Your task to perform on an android device: toggle priority inbox in the gmail app Image 0: 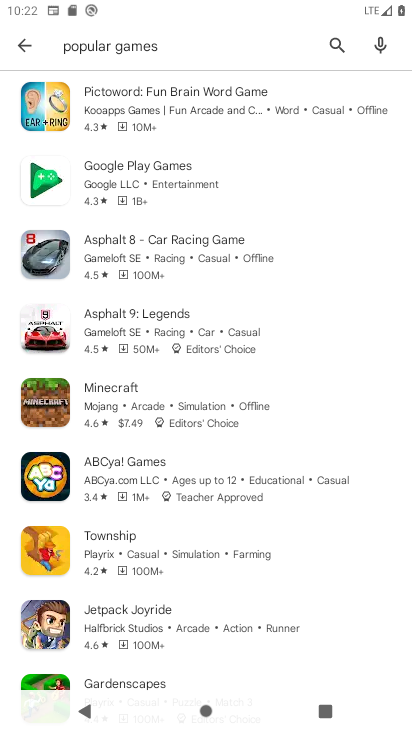
Step 0: press home button
Your task to perform on an android device: toggle priority inbox in the gmail app Image 1: 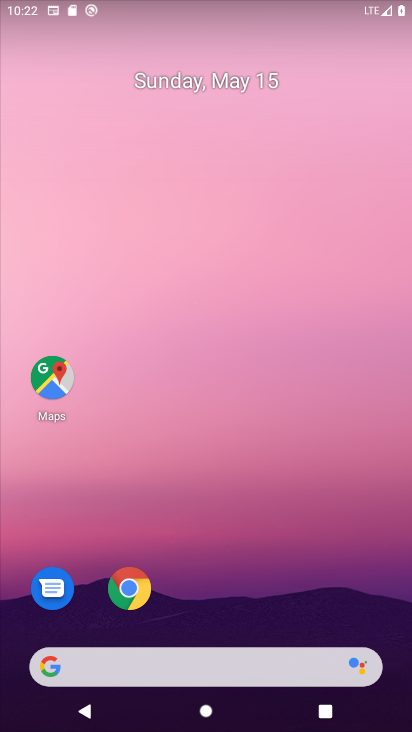
Step 1: drag from (252, 609) to (173, 206)
Your task to perform on an android device: toggle priority inbox in the gmail app Image 2: 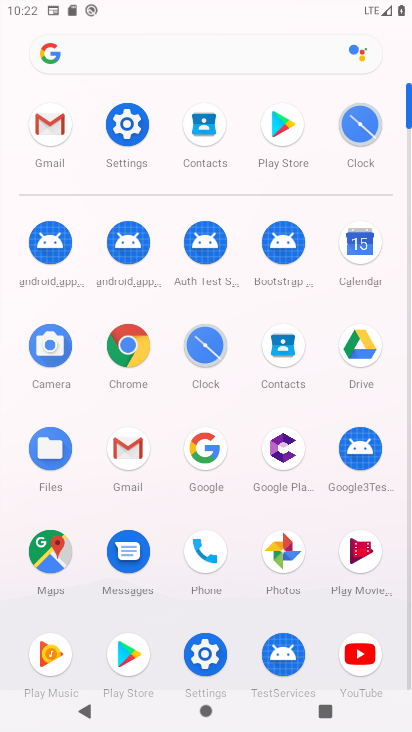
Step 2: click (47, 118)
Your task to perform on an android device: toggle priority inbox in the gmail app Image 3: 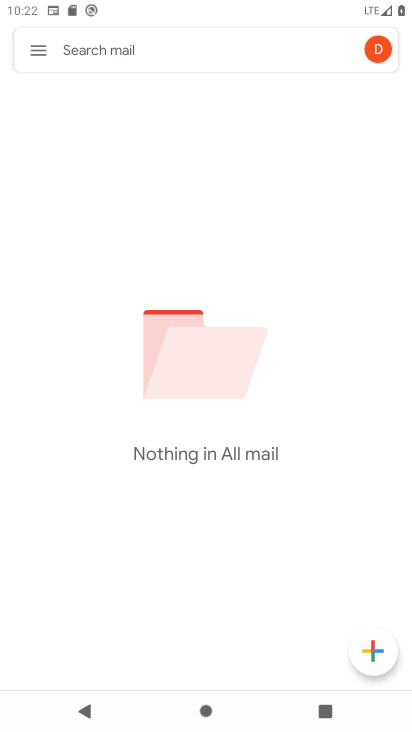
Step 3: click (38, 48)
Your task to perform on an android device: toggle priority inbox in the gmail app Image 4: 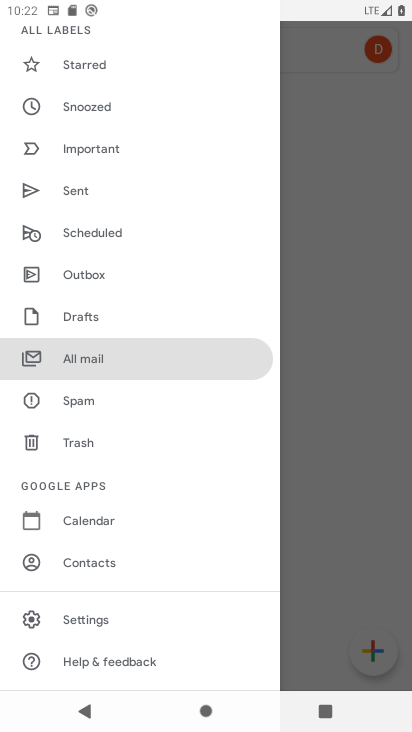
Step 4: click (96, 621)
Your task to perform on an android device: toggle priority inbox in the gmail app Image 5: 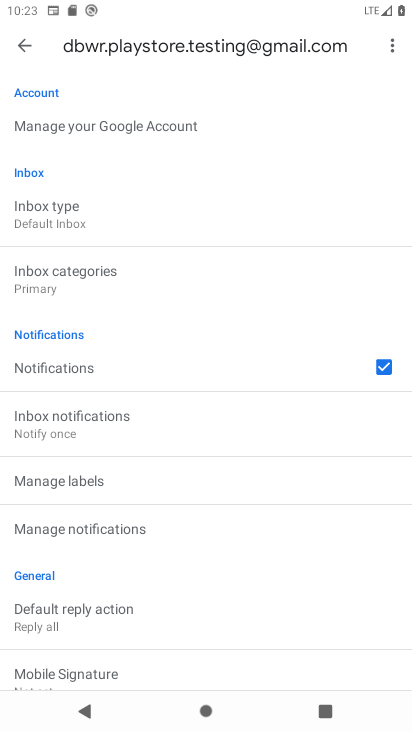
Step 5: click (63, 206)
Your task to perform on an android device: toggle priority inbox in the gmail app Image 6: 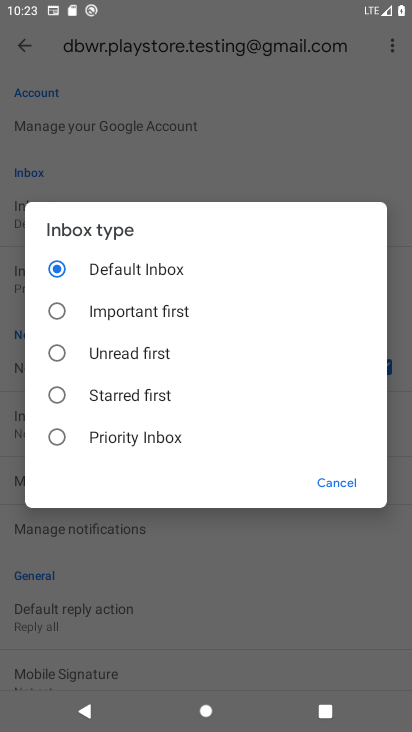
Step 6: click (54, 436)
Your task to perform on an android device: toggle priority inbox in the gmail app Image 7: 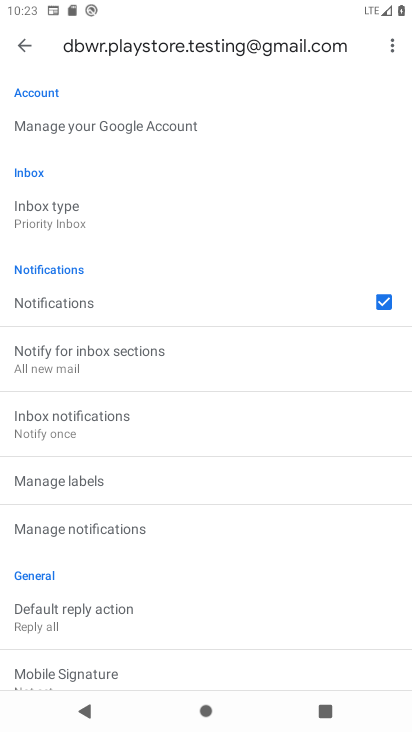
Step 7: task complete